Your task to perform on an android device: Open calendar and show me the fourth week of next month Image 0: 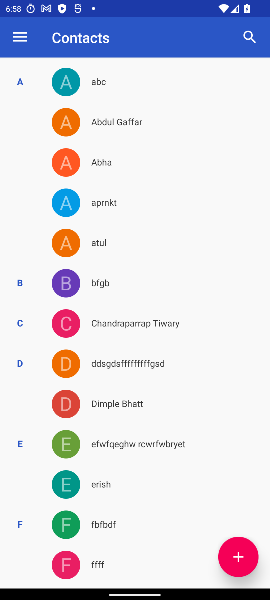
Step 0: press home button
Your task to perform on an android device: Open calendar and show me the fourth week of next month Image 1: 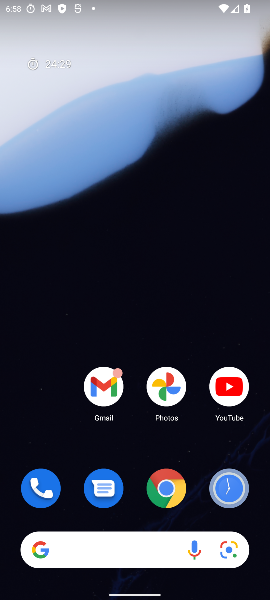
Step 1: drag from (89, 453) to (177, 66)
Your task to perform on an android device: Open calendar and show me the fourth week of next month Image 2: 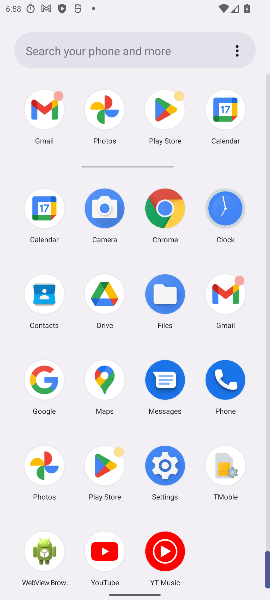
Step 2: click (43, 206)
Your task to perform on an android device: Open calendar and show me the fourth week of next month Image 3: 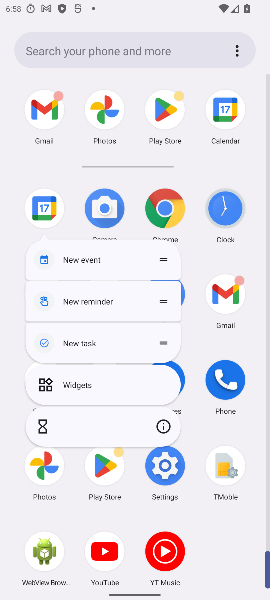
Step 3: click (43, 204)
Your task to perform on an android device: Open calendar and show me the fourth week of next month Image 4: 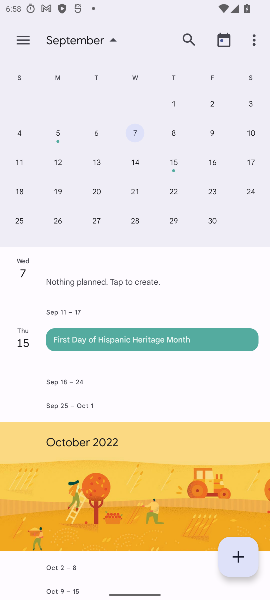
Step 4: drag from (221, 169) to (14, 363)
Your task to perform on an android device: Open calendar and show me the fourth week of next month Image 5: 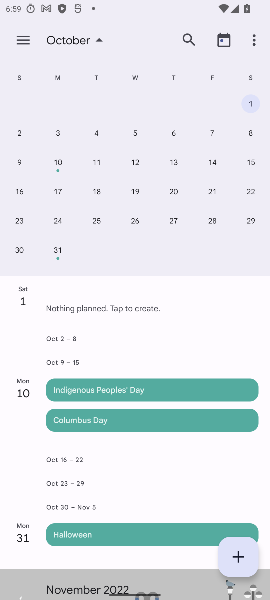
Step 5: click (208, 223)
Your task to perform on an android device: Open calendar and show me the fourth week of next month Image 6: 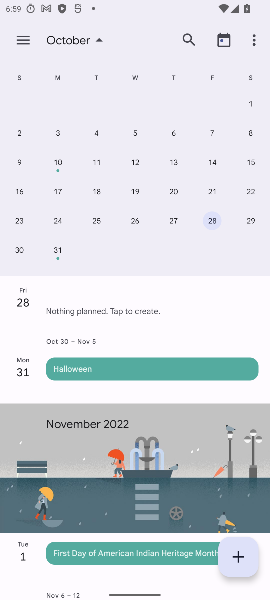
Step 6: task complete